Your task to perform on an android device: toggle wifi Image 0: 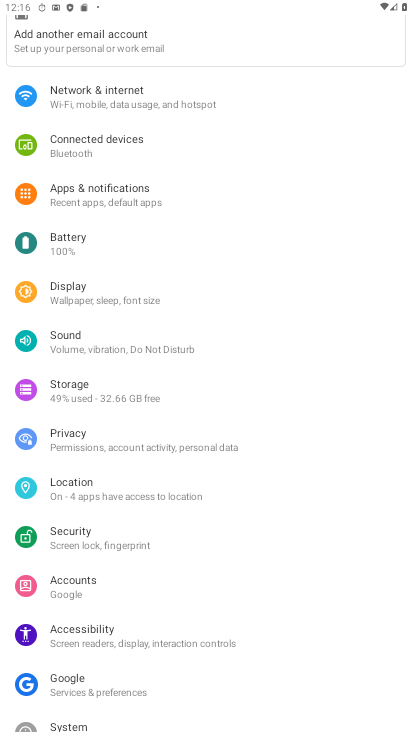
Step 0: click (119, 92)
Your task to perform on an android device: toggle wifi Image 1: 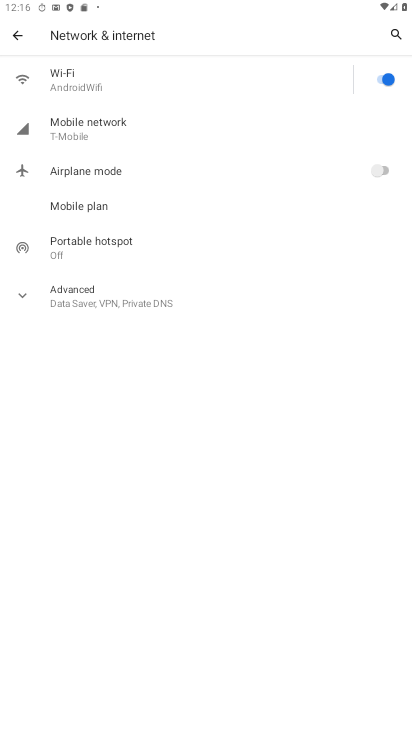
Step 1: click (369, 80)
Your task to perform on an android device: toggle wifi Image 2: 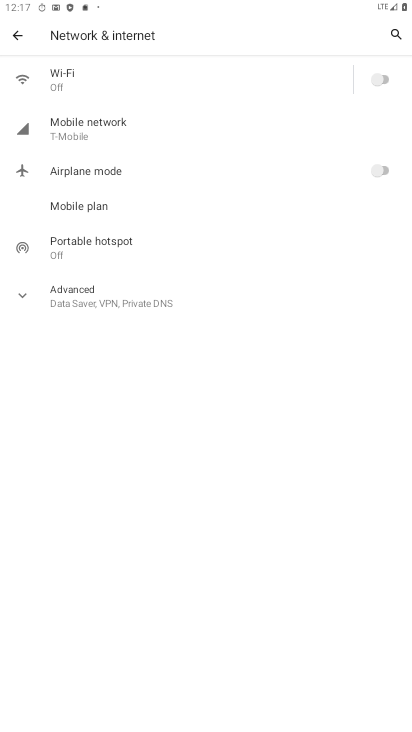
Step 2: task complete